Your task to perform on an android device: Go to ESPN.com Image 0: 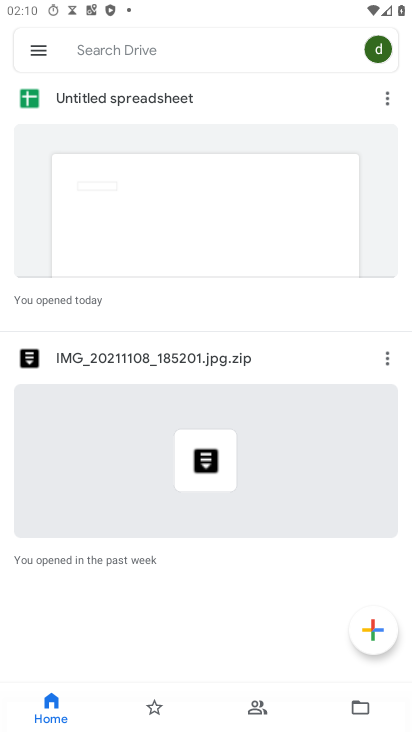
Step 0: press home button
Your task to perform on an android device: Go to ESPN.com Image 1: 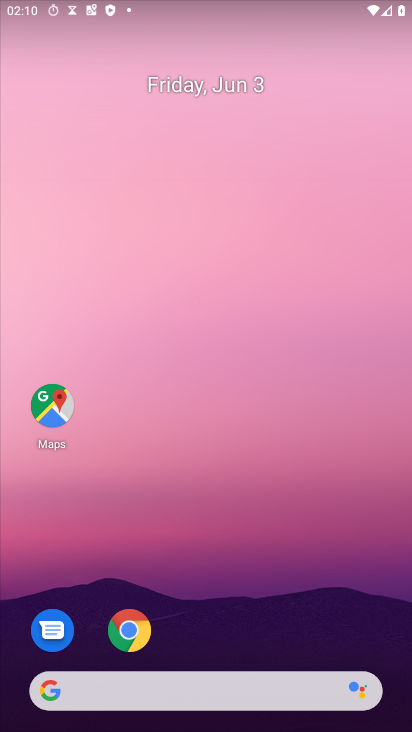
Step 1: drag from (237, 647) to (125, 99)
Your task to perform on an android device: Go to ESPN.com Image 2: 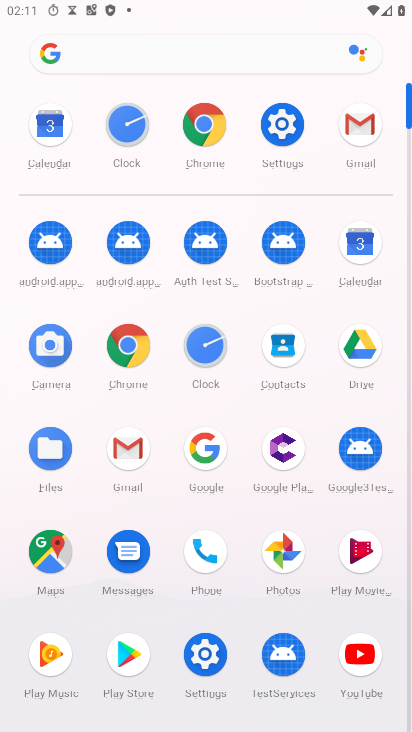
Step 2: click (193, 131)
Your task to perform on an android device: Go to ESPN.com Image 3: 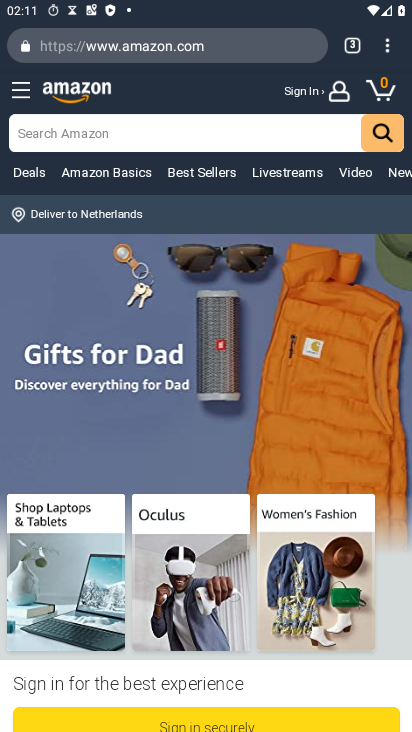
Step 3: click (350, 55)
Your task to perform on an android device: Go to ESPN.com Image 4: 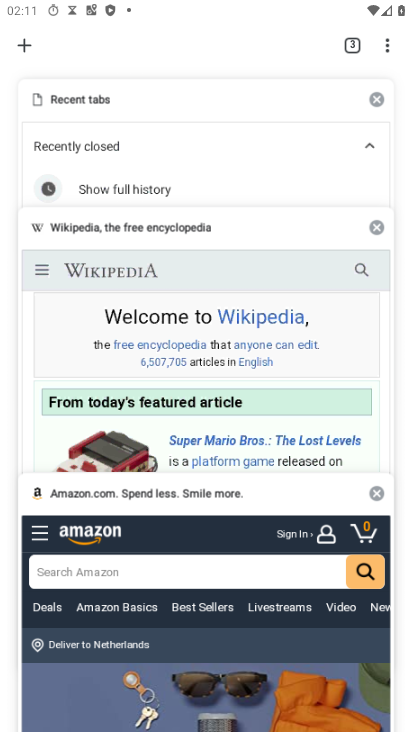
Step 4: click (21, 48)
Your task to perform on an android device: Go to ESPN.com Image 5: 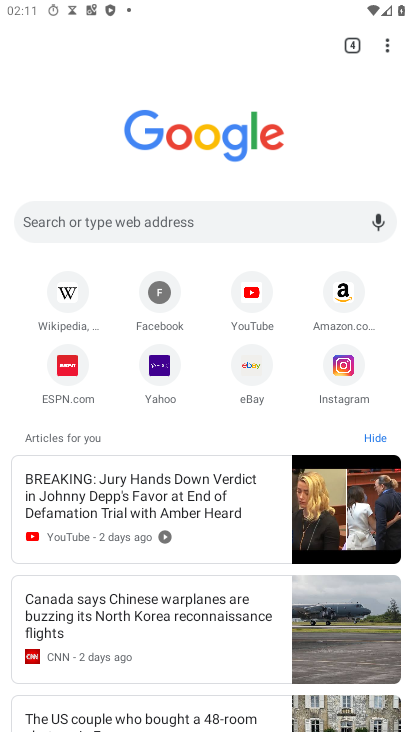
Step 5: click (60, 371)
Your task to perform on an android device: Go to ESPN.com Image 6: 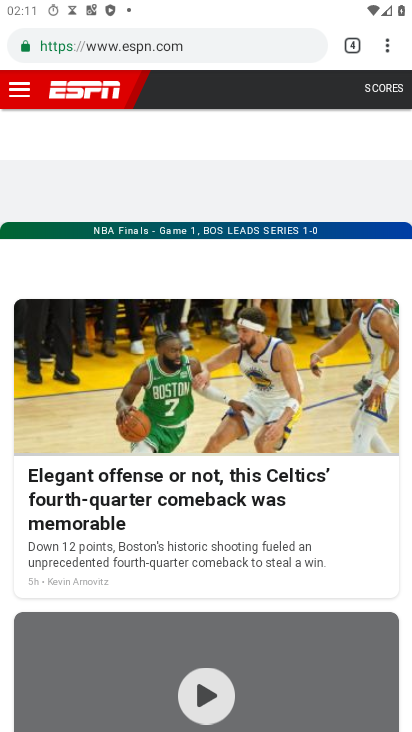
Step 6: task complete